Your task to perform on an android device: show emergency info Image 0: 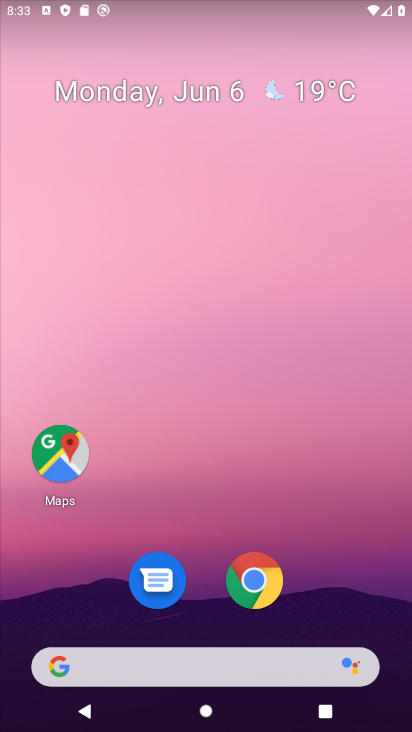
Step 0: drag from (231, 651) to (290, 9)
Your task to perform on an android device: show emergency info Image 1: 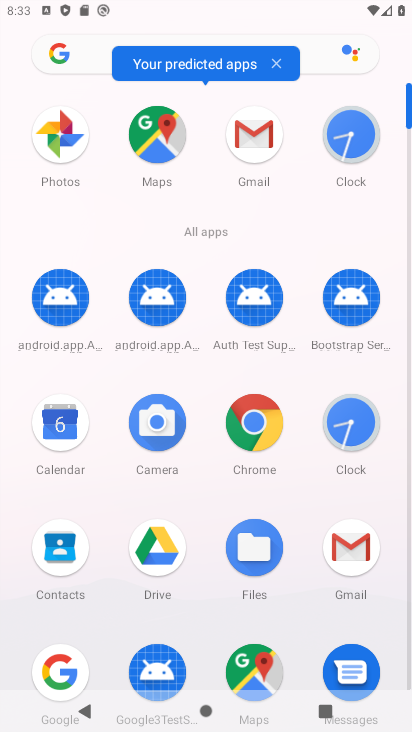
Step 1: drag from (301, 543) to (331, 3)
Your task to perform on an android device: show emergency info Image 2: 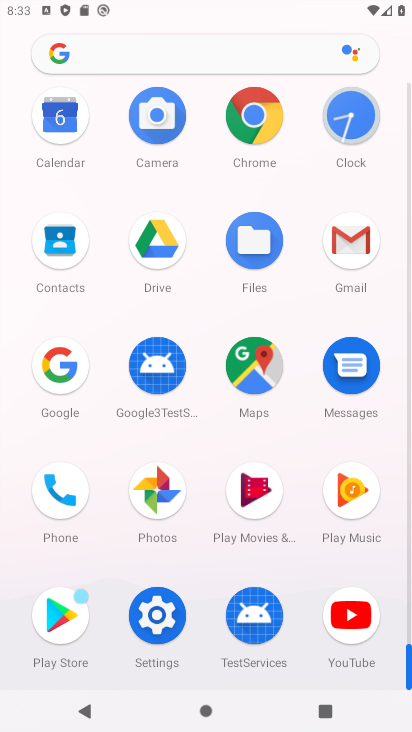
Step 2: click (177, 622)
Your task to perform on an android device: show emergency info Image 3: 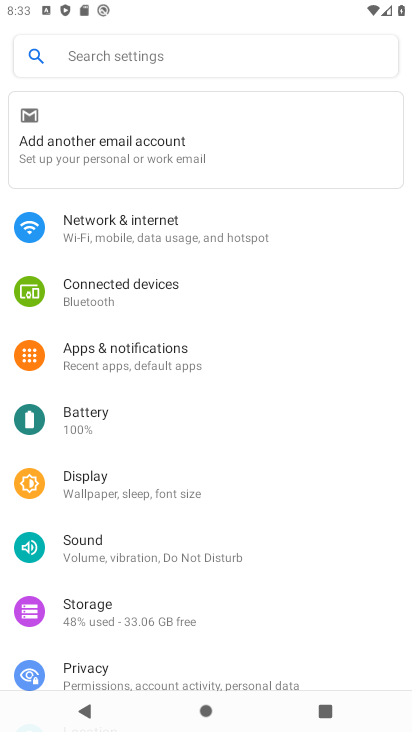
Step 3: drag from (117, 661) to (200, 211)
Your task to perform on an android device: show emergency info Image 4: 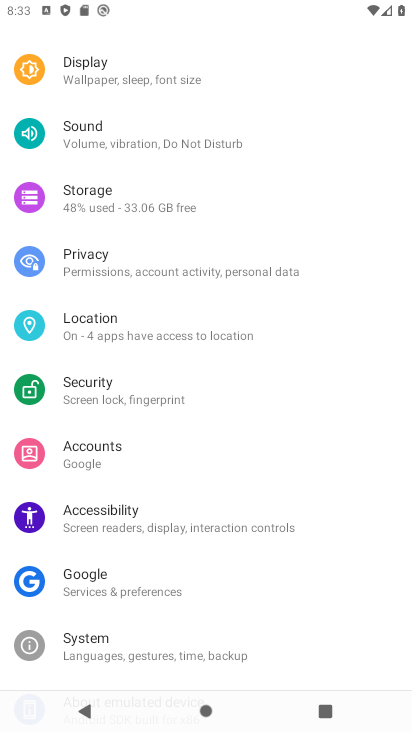
Step 4: drag from (121, 672) to (158, 340)
Your task to perform on an android device: show emergency info Image 5: 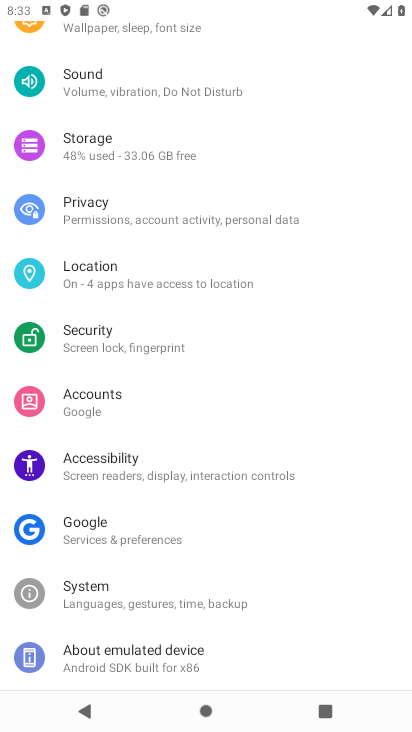
Step 5: click (164, 667)
Your task to perform on an android device: show emergency info Image 6: 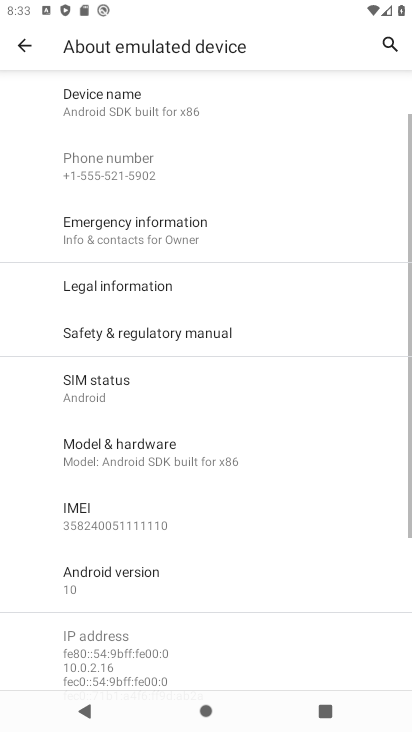
Step 6: click (119, 235)
Your task to perform on an android device: show emergency info Image 7: 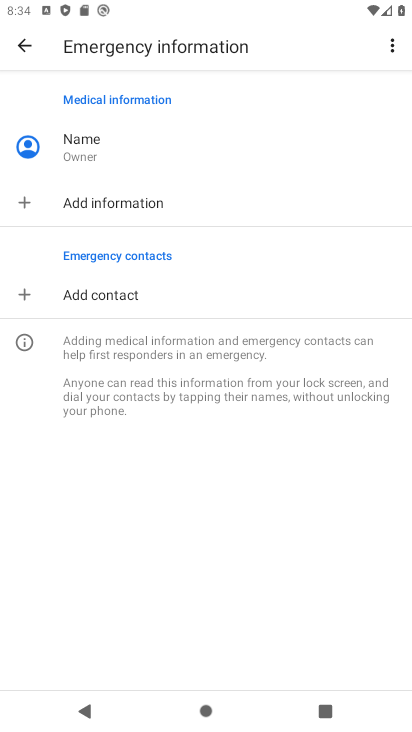
Step 7: task complete